Your task to perform on an android device: Is it going to rain this weekend? Image 0: 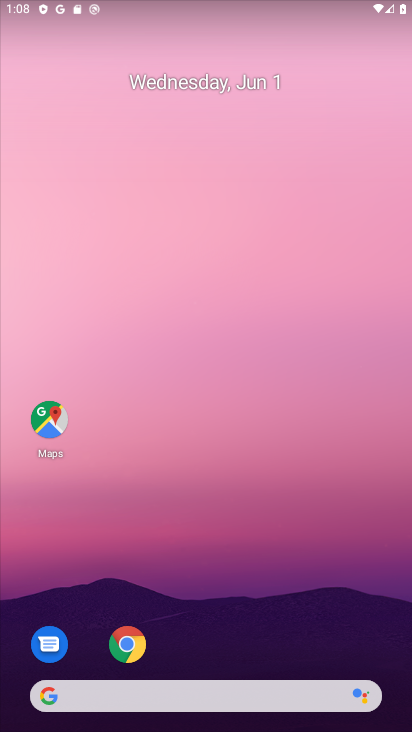
Step 0: click (56, 697)
Your task to perform on an android device: Is it going to rain this weekend? Image 1: 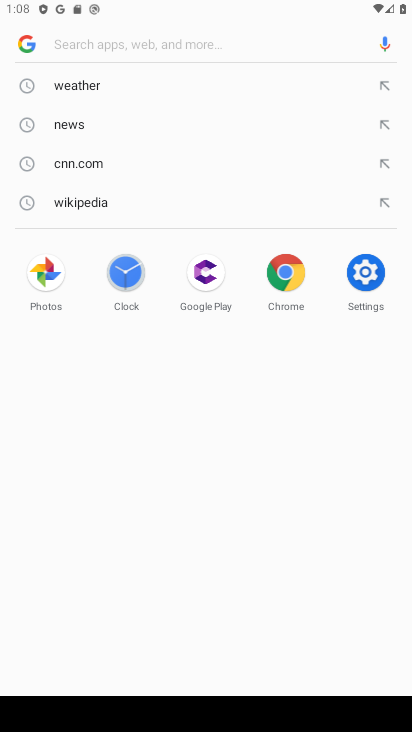
Step 1: click (81, 88)
Your task to perform on an android device: Is it going to rain this weekend? Image 2: 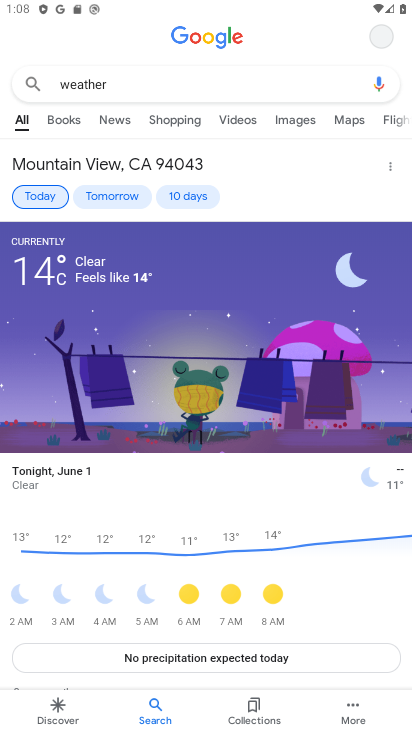
Step 2: click (187, 196)
Your task to perform on an android device: Is it going to rain this weekend? Image 3: 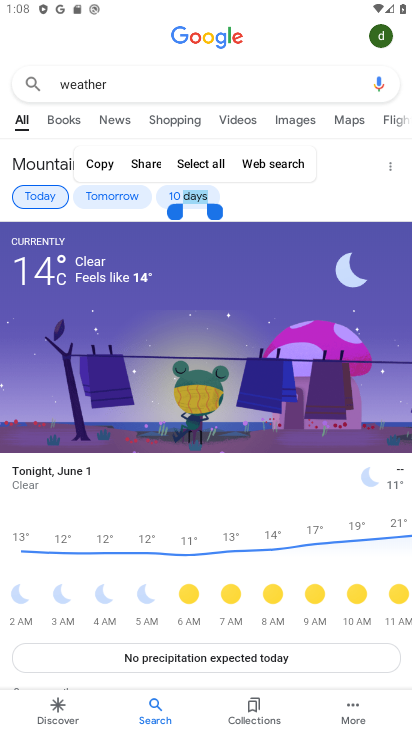
Step 3: click (187, 196)
Your task to perform on an android device: Is it going to rain this weekend? Image 4: 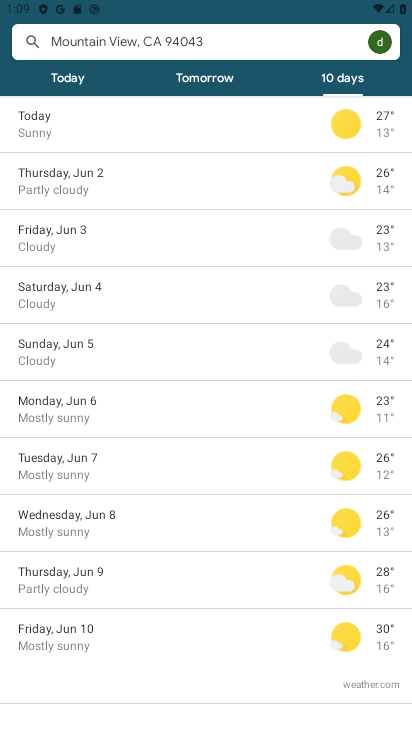
Step 4: click (94, 297)
Your task to perform on an android device: Is it going to rain this weekend? Image 5: 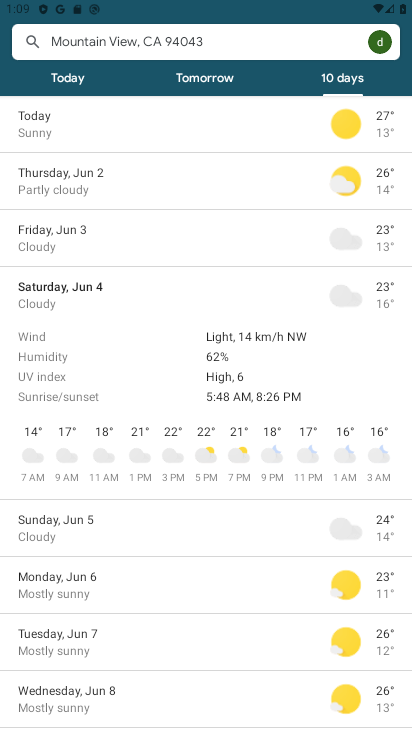
Step 5: task complete